Your task to perform on an android device: Open calendar and show me the fourth week of next month Image 0: 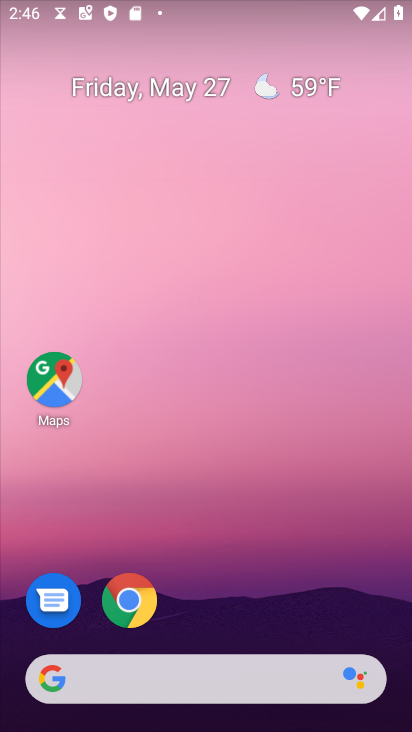
Step 0: drag from (292, 568) to (227, 141)
Your task to perform on an android device: Open calendar and show me the fourth week of next month Image 1: 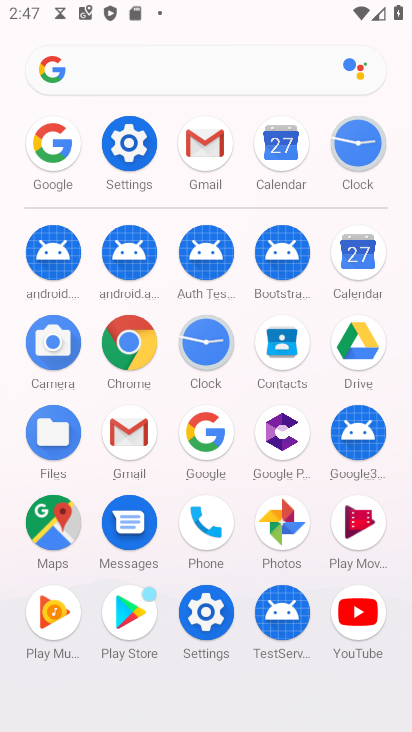
Step 1: click (358, 254)
Your task to perform on an android device: Open calendar and show me the fourth week of next month Image 2: 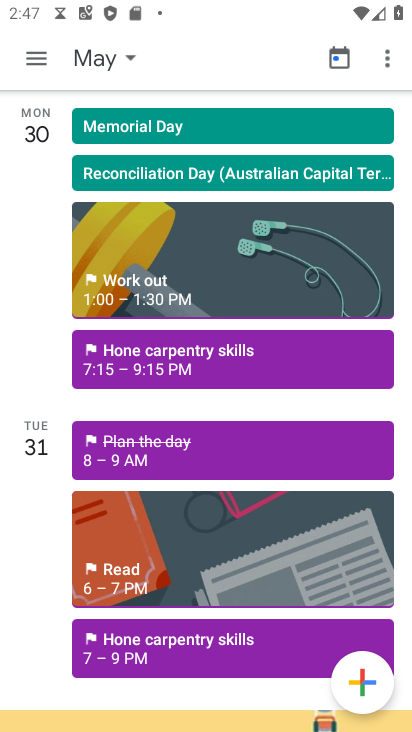
Step 2: click (340, 56)
Your task to perform on an android device: Open calendar and show me the fourth week of next month Image 3: 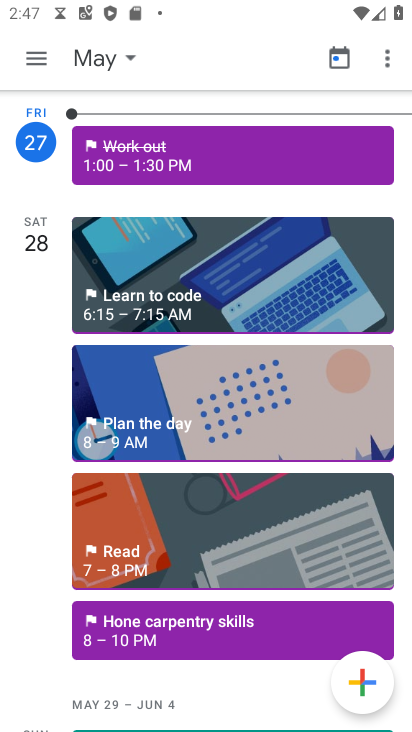
Step 3: click (130, 55)
Your task to perform on an android device: Open calendar and show me the fourth week of next month Image 4: 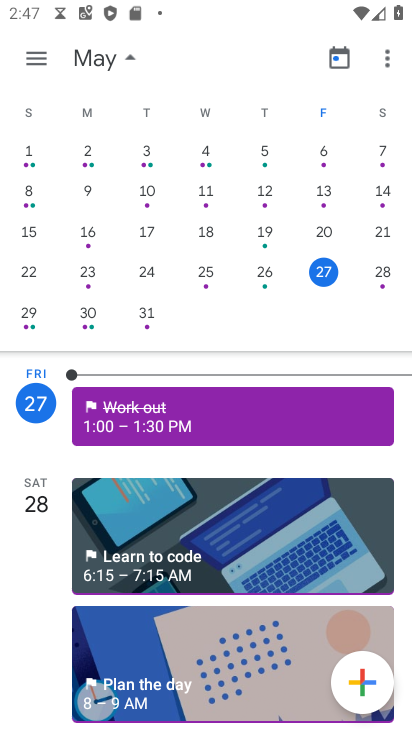
Step 4: drag from (361, 223) to (33, 235)
Your task to perform on an android device: Open calendar and show me the fourth week of next month Image 5: 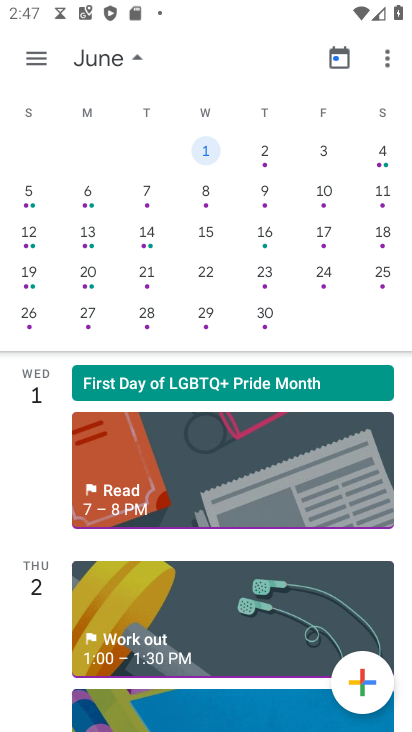
Step 5: click (88, 305)
Your task to perform on an android device: Open calendar and show me the fourth week of next month Image 6: 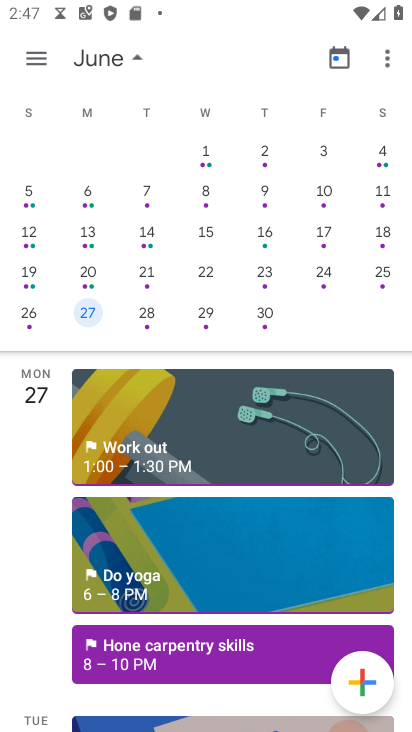
Step 6: click (34, 59)
Your task to perform on an android device: Open calendar and show me the fourth week of next month Image 7: 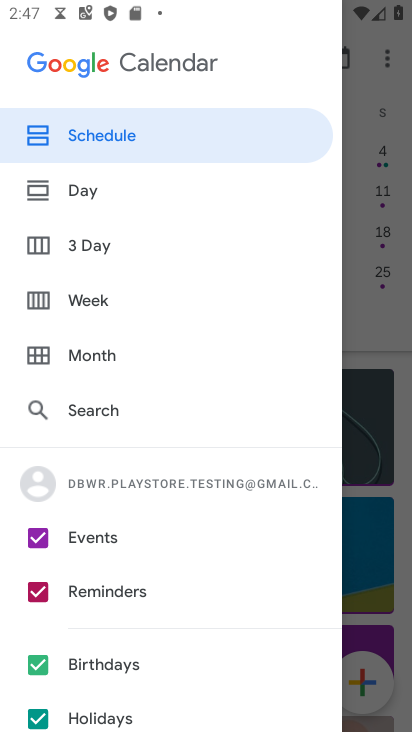
Step 7: click (81, 297)
Your task to perform on an android device: Open calendar and show me the fourth week of next month Image 8: 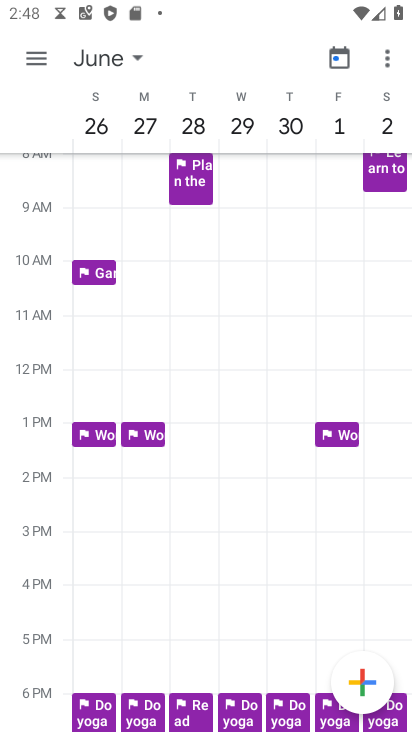
Step 8: task complete